Your task to perform on an android device: toggle priority inbox in the gmail app Image 0: 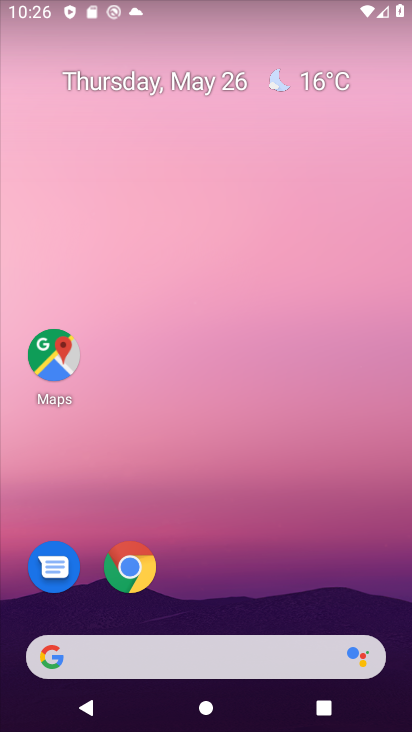
Step 0: press home button
Your task to perform on an android device: toggle priority inbox in the gmail app Image 1: 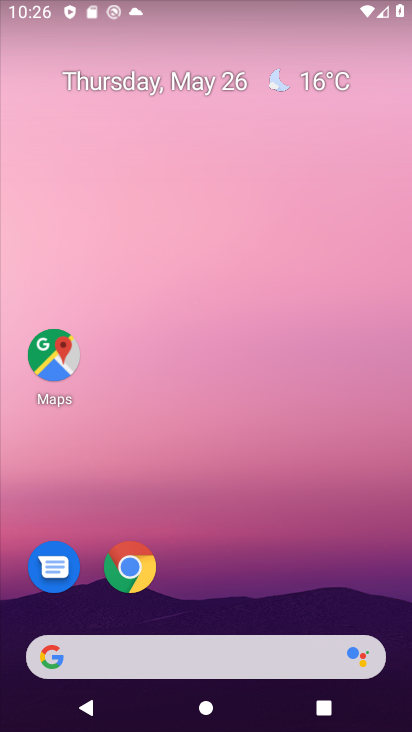
Step 1: drag from (216, 498) to (230, 40)
Your task to perform on an android device: toggle priority inbox in the gmail app Image 2: 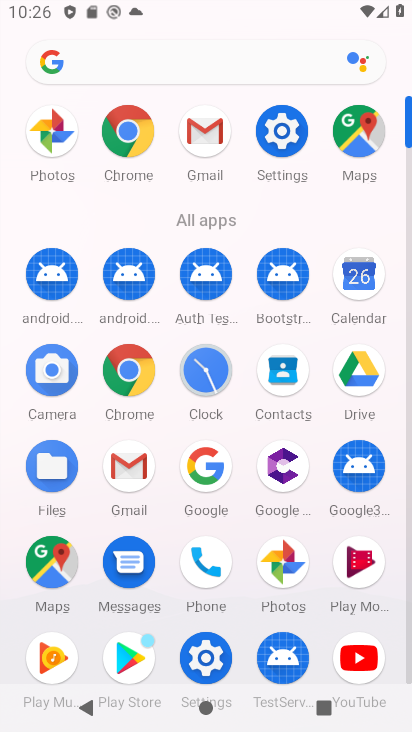
Step 2: click (209, 118)
Your task to perform on an android device: toggle priority inbox in the gmail app Image 3: 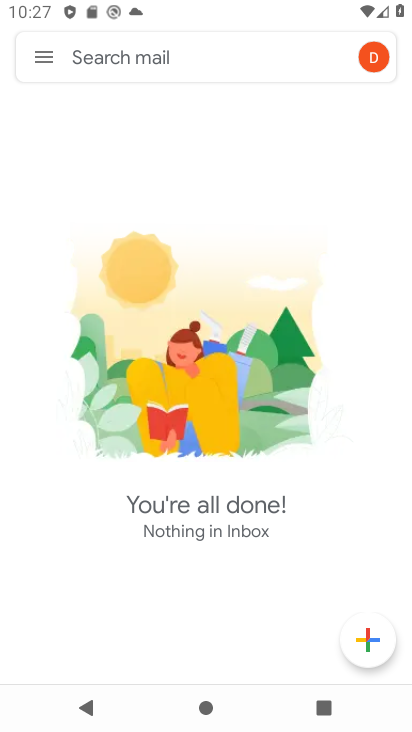
Step 3: click (36, 54)
Your task to perform on an android device: toggle priority inbox in the gmail app Image 4: 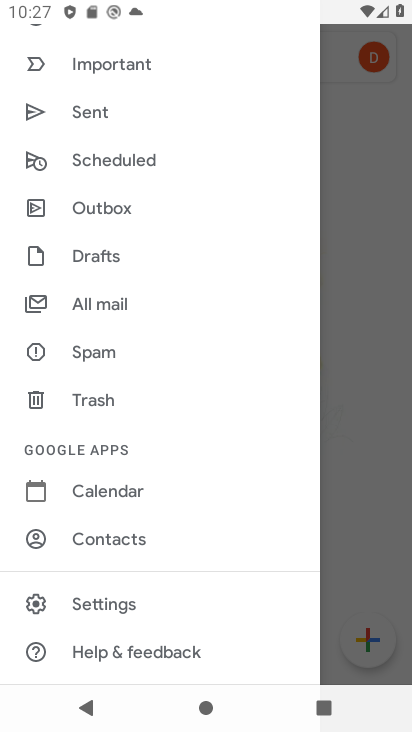
Step 4: click (126, 604)
Your task to perform on an android device: toggle priority inbox in the gmail app Image 5: 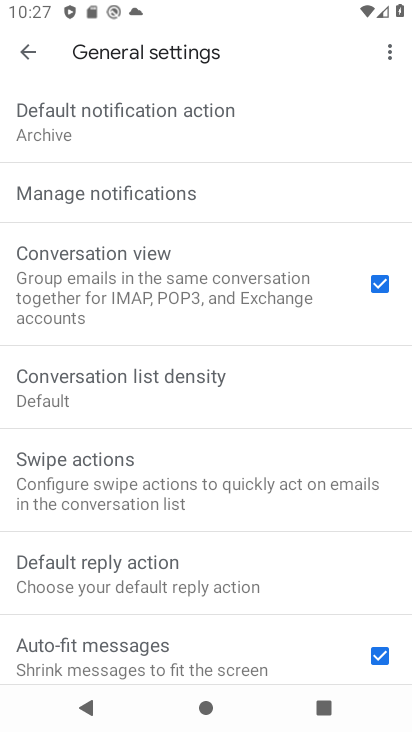
Step 5: drag from (191, 625) to (242, 166)
Your task to perform on an android device: toggle priority inbox in the gmail app Image 6: 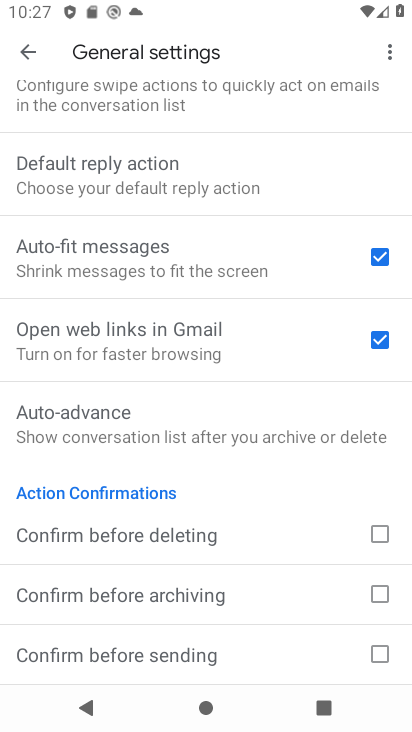
Step 6: click (30, 57)
Your task to perform on an android device: toggle priority inbox in the gmail app Image 7: 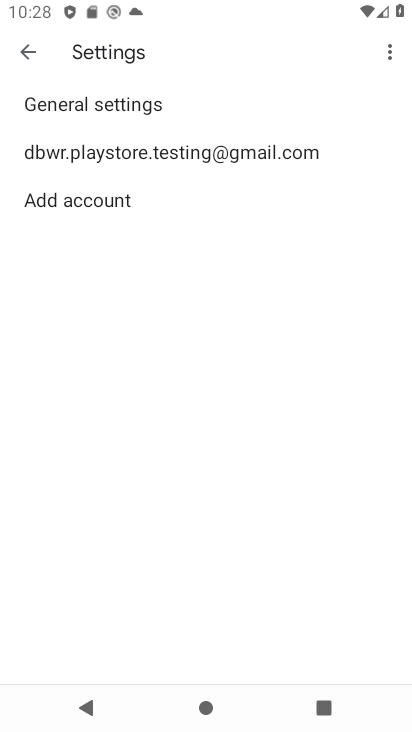
Step 7: click (237, 150)
Your task to perform on an android device: toggle priority inbox in the gmail app Image 8: 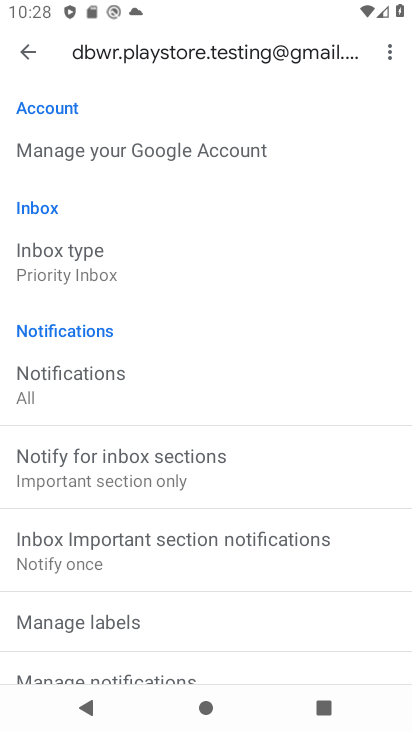
Step 8: click (137, 254)
Your task to perform on an android device: toggle priority inbox in the gmail app Image 9: 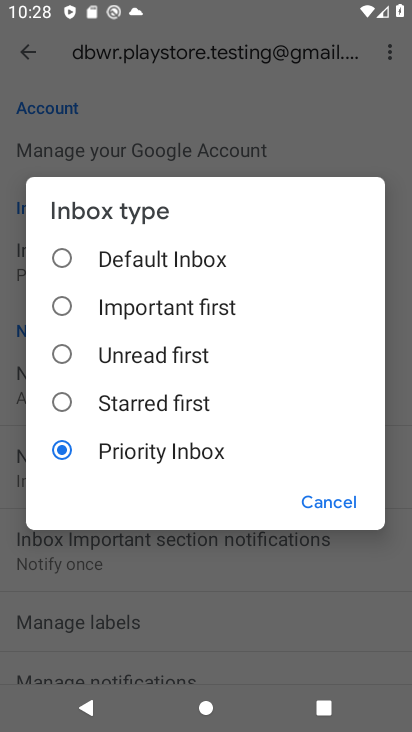
Step 9: task complete